Your task to perform on an android device: Do I have any events today? Image 0: 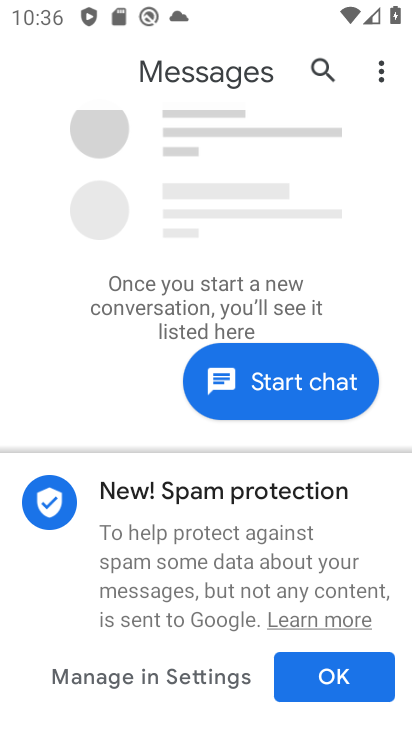
Step 0: press home button
Your task to perform on an android device: Do I have any events today? Image 1: 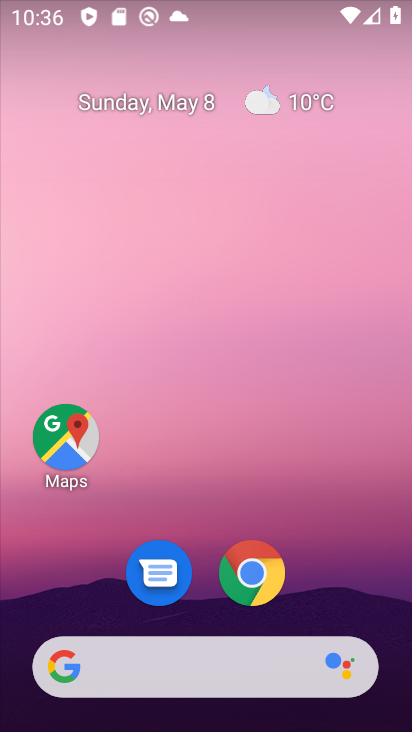
Step 1: drag from (352, 578) to (361, 222)
Your task to perform on an android device: Do I have any events today? Image 2: 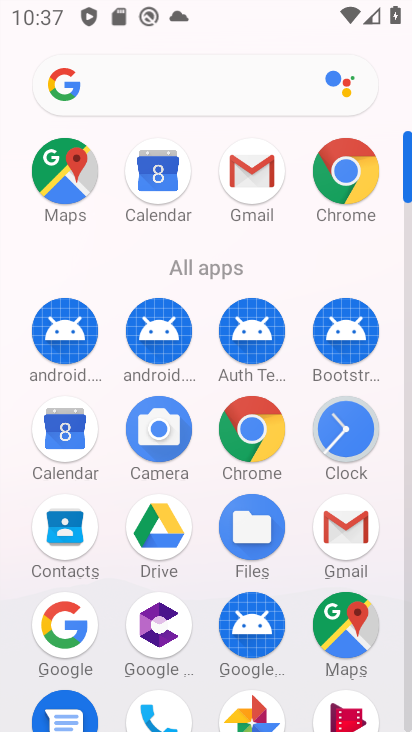
Step 2: click (82, 449)
Your task to perform on an android device: Do I have any events today? Image 3: 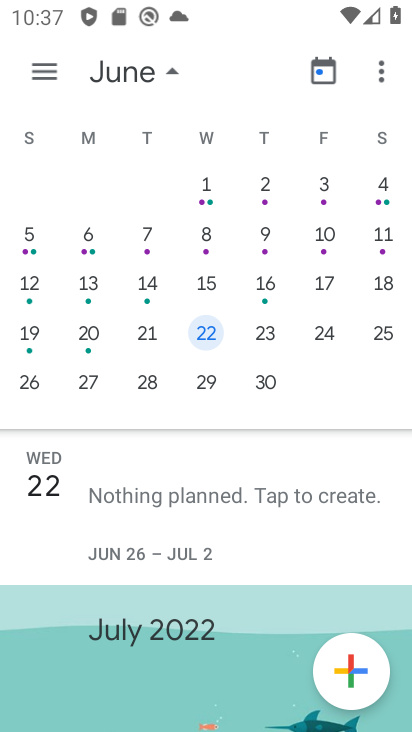
Step 3: drag from (79, 293) to (403, 311)
Your task to perform on an android device: Do I have any events today? Image 4: 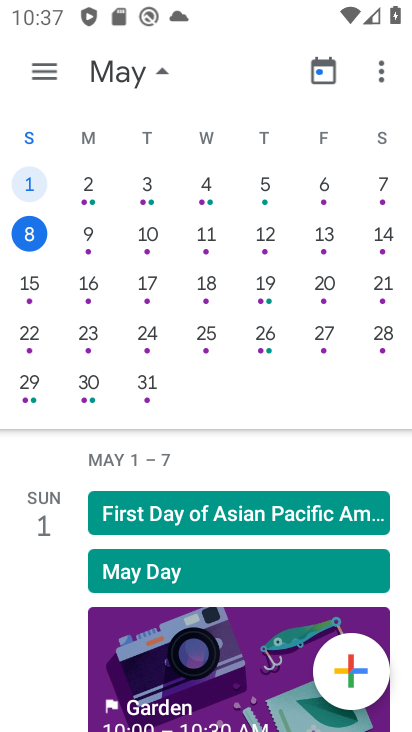
Step 4: click (97, 234)
Your task to perform on an android device: Do I have any events today? Image 5: 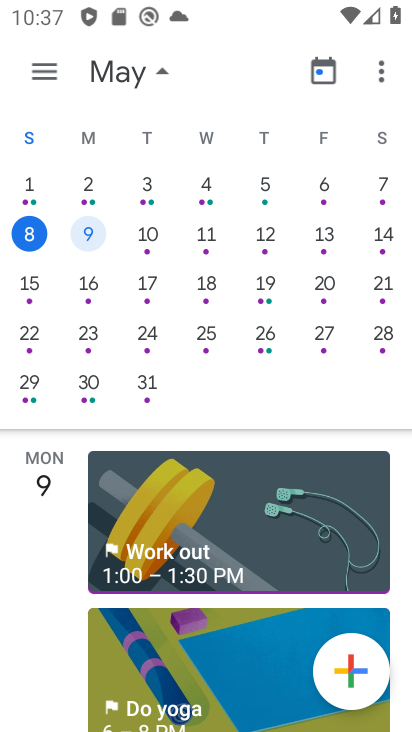
Step 5: click (157, 71)
Your task to perform on an android device: Do I have any events today? Image 6: 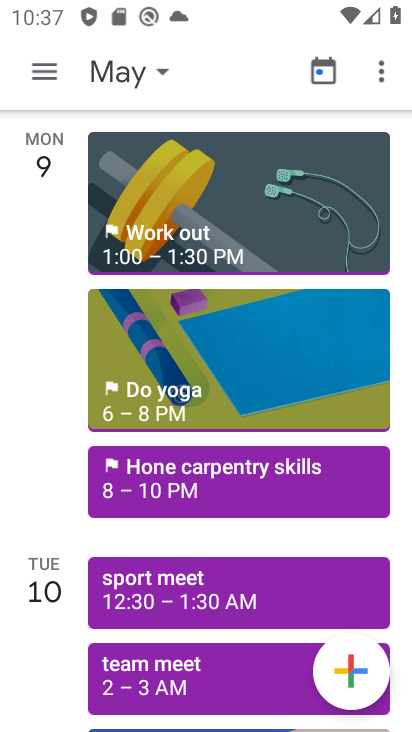
Step 6: task complete